Your task to perform on an android device: add a contact Image 0: 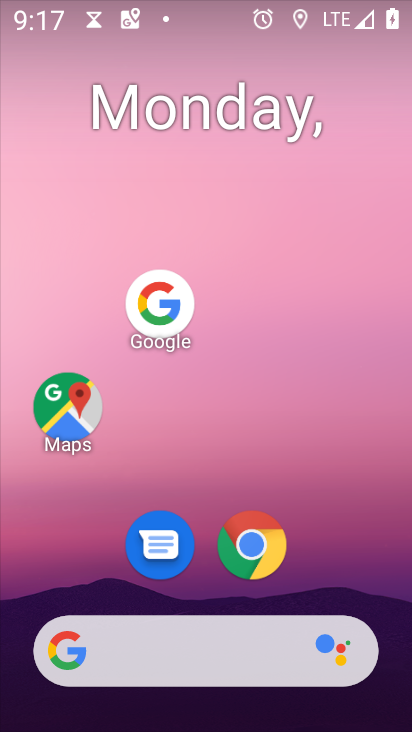
Step 0: drag from (167, 605) to (321, 145)
Your task to perform on an android device: add a contact Image 1: 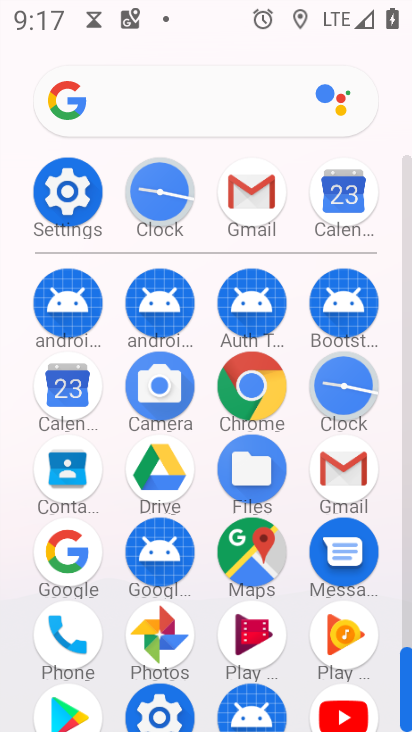
Step 1: click (77, 475)
Your task to perform on an android device: add a contact Image 2: 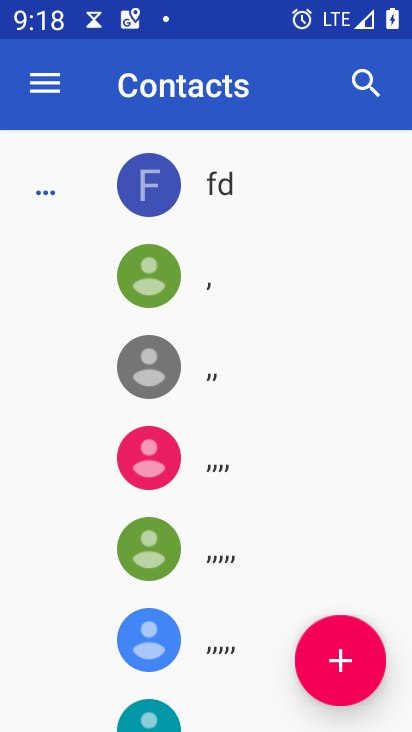
Step 2: click (337, 662)
Your task to perform on an android device: add a contact Image 3: 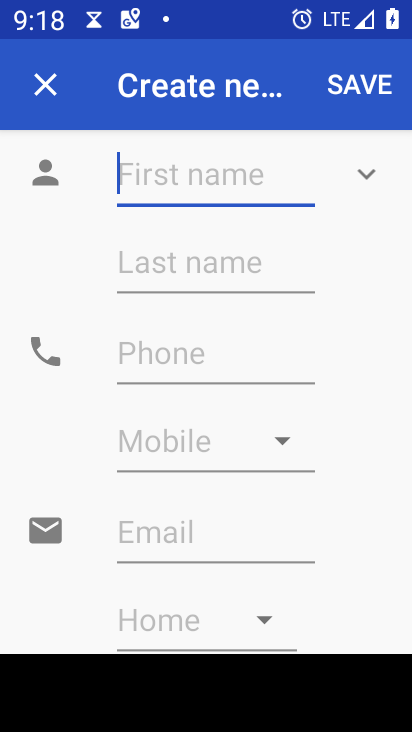
Step 3: type "hgytg"
Your task to perform on an android device: add a contact Image 4: 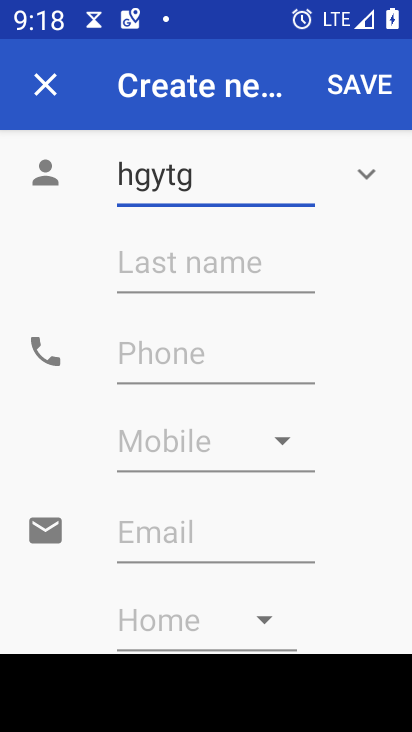
Step 4: click (148, 358)
Your task to perform on an android device: add a contact Image 5: 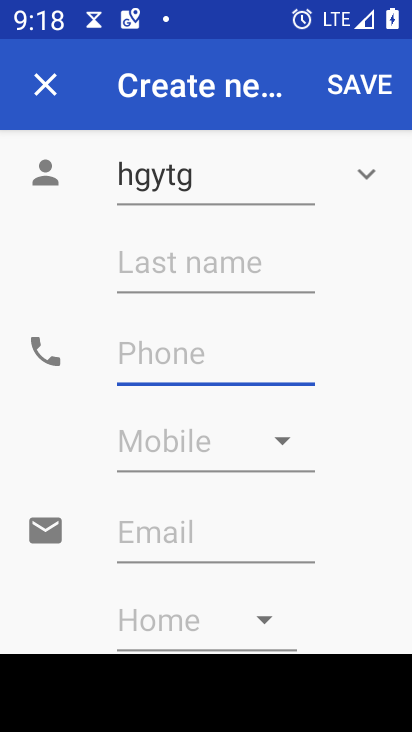
Step 5: type "765888"
Your task to perform on an android device: add a contact Image 6: 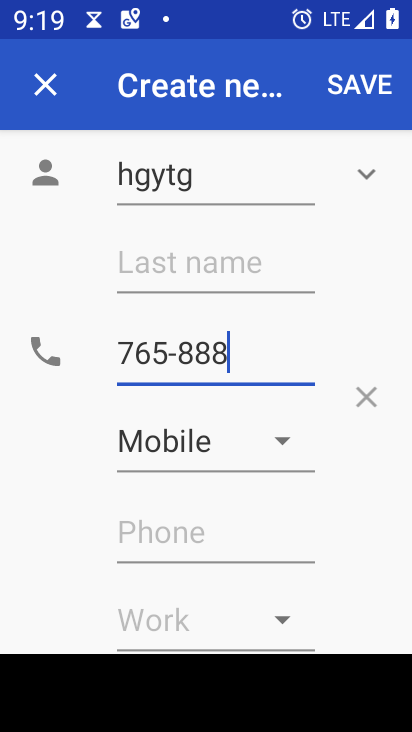
Step 6: click (375, 74)
Your task to perform on an android device: add a contact Image 7: 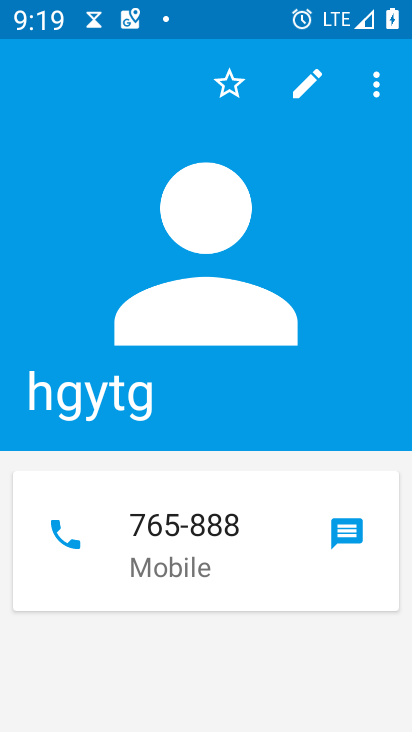
Step 7: task complete